Your task to perform on an android device: Search for Italian restaurants on Maps Image 0: 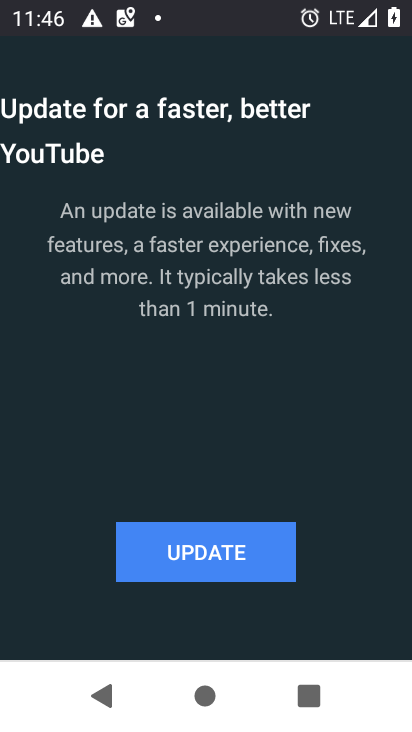
Step 0: press back button
Your task to perform on an android device: Search for Italian restaurants on Maps Image 1: 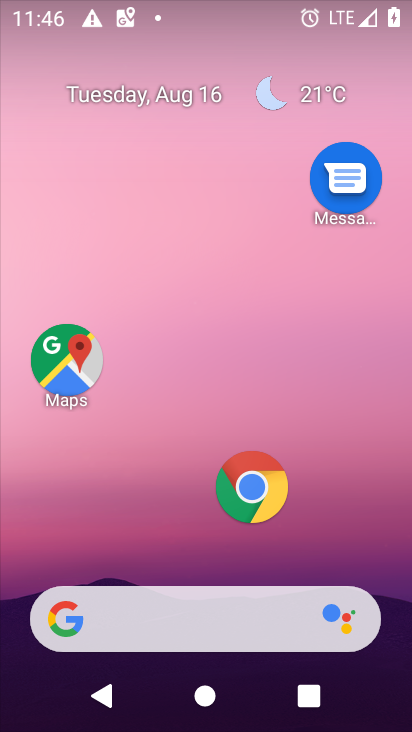
Step 1: click (63, 352)
Your task to perform on an android device: Search for Italian restaurants on Maps Image 2: 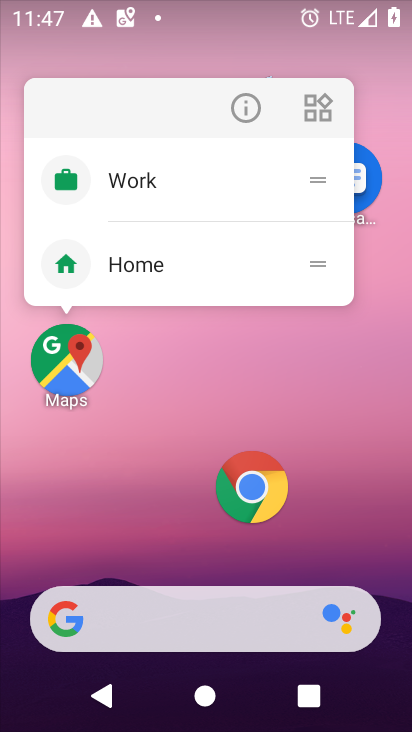
Step 2: click (59, 364)
Your task to perform on an android device: Search for Italian restaurants on Maps Image 3: 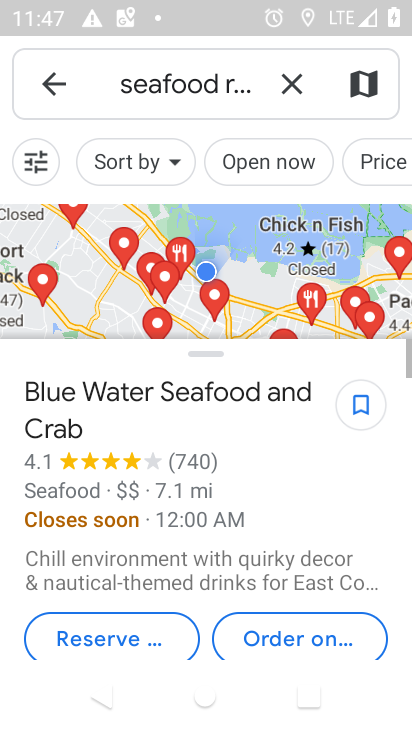
Step 3: click (280, 74)
Your task to perform on an android device: Search for Italian restaurants on Maps Image 4: 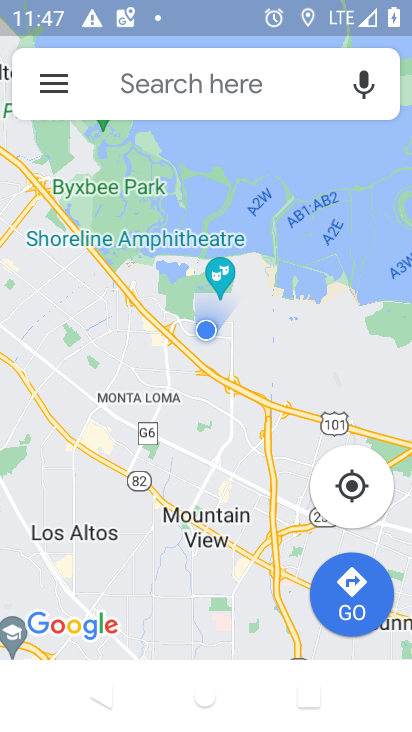
Step 4: click (218, 73)
Your task to perform on an android device: Search for Italian restaurants on Maps Image 5: 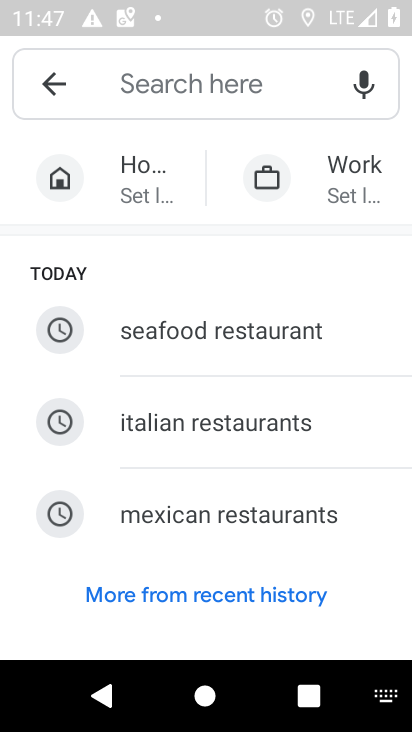
Step 5: type "italian"
Your task to perform on an android device: Search for Italian restaurants on Maps Image 6: 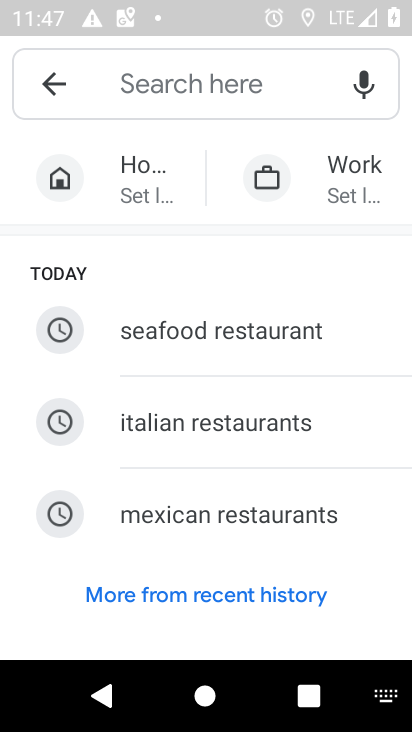
Step 6: click (270, 434)
Your task to perform on an android device: Search for Italian restaurants on Maps Image 7: 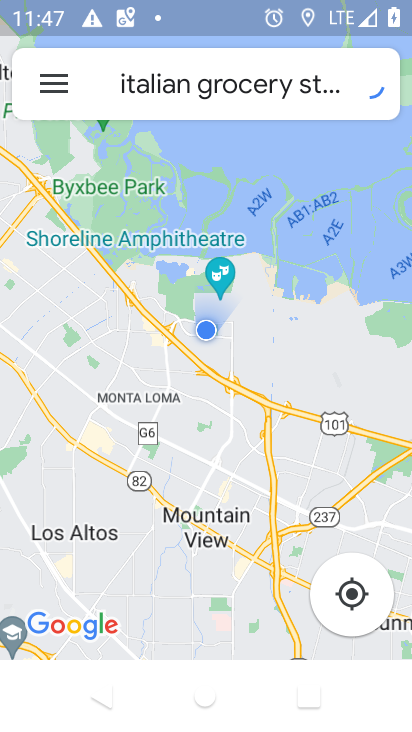
Step 7: press back button
Your task to perform on an android device: Search for Italian restaurants on Maps Image 8: 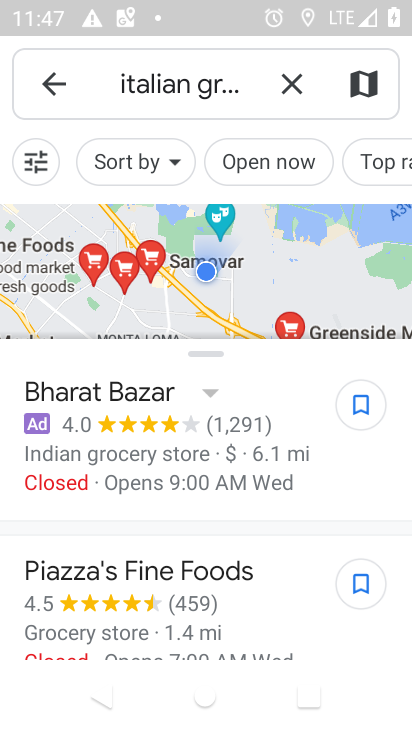
Step 8: click (301, 82)
Your task to perform on an android device: Search for Italian restaurants on Maps Image 9: 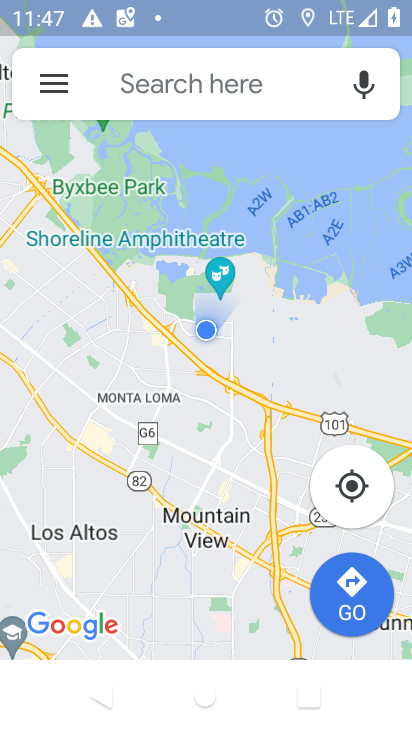
Step 9: click (190, 83)
Your task to perform on an android device: Search for Italian restaurants on Maps Image 10: 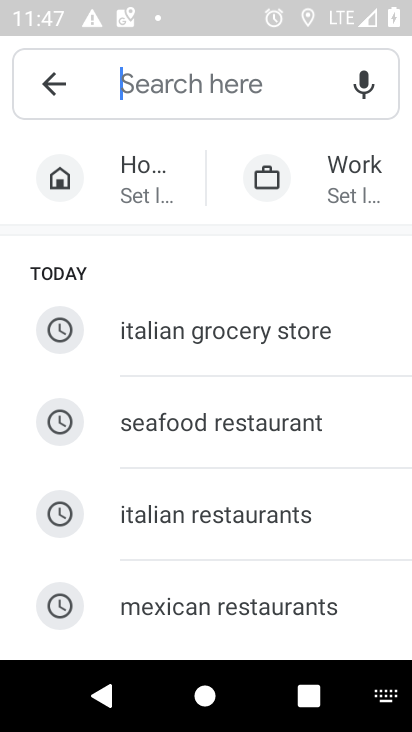
Step 10: click (228, 521)
Your task to perform on an android device: Search for Italian restaurants on Maps Image 11: 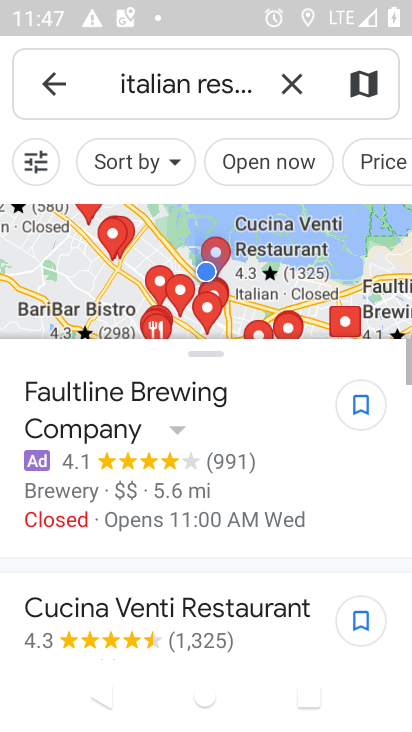
Step 11: task complete